Your task to perform on an android device: turn notification dots on Image 0: 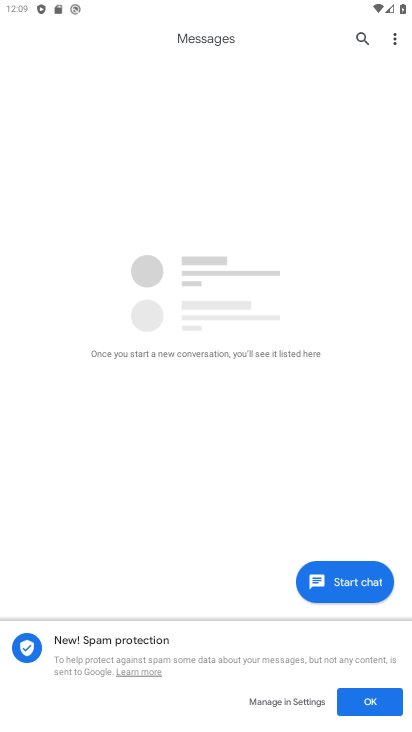
Step 0: drag from (204, 545) to (252, 367)
Your task to perform on an android device: turn notification dots on Image 1: 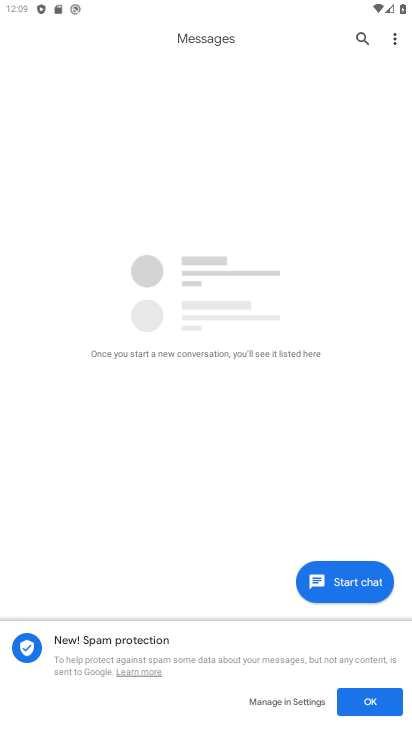
Step 1: press home button
Your task to perform on an android device: turn notification dots on Image 2: 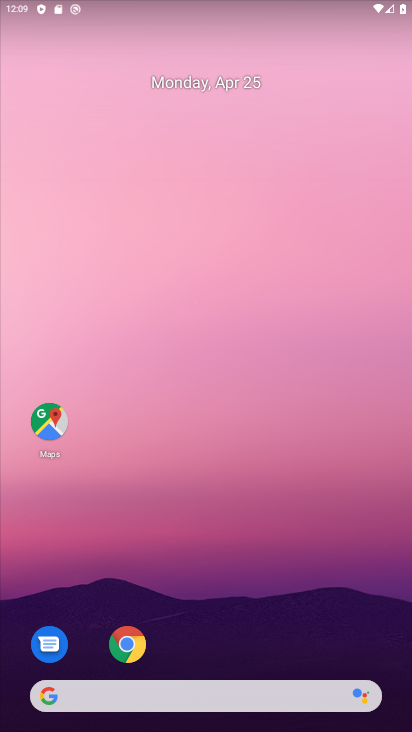
Step 2: drag from (214, 650) to (216, 119)
Your task to perform on an android device: turn notification dots on Image 3: 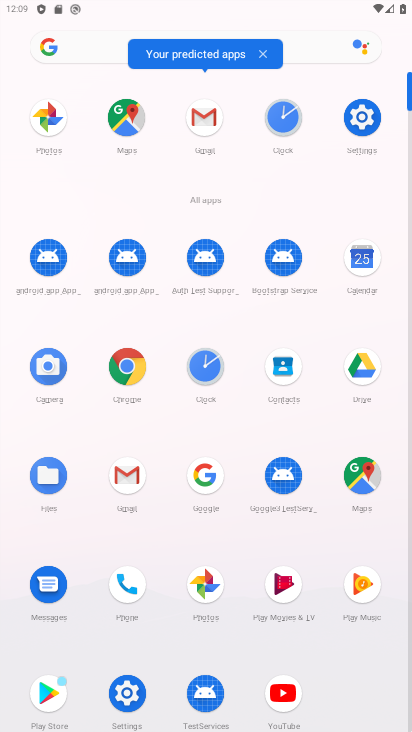
Step 3: click (352, 115)
Your task to perform on an android device: turn notification dots on Image 4: 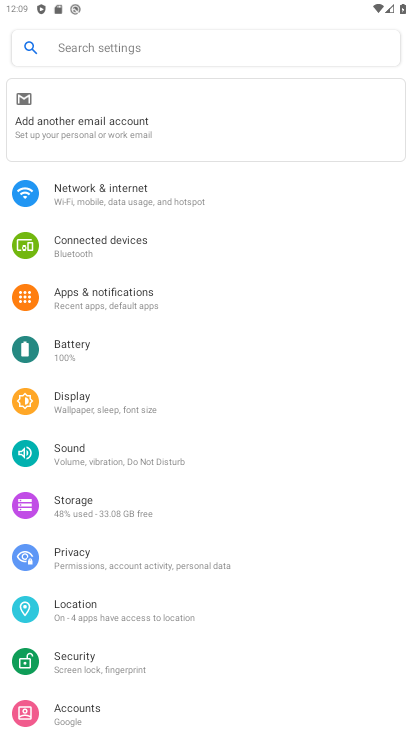
Step 4: click (264, 300)
Your task to perform on an android device: turn notification dots on Image 5: 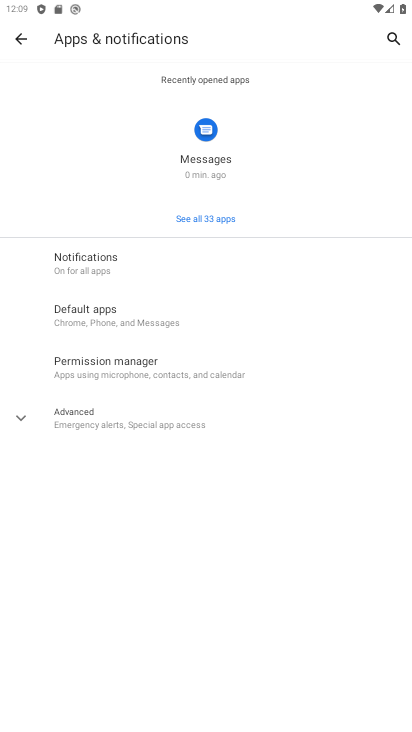
Step 5: click (213, 262)
Your task to perform on an android device: turn notification dots on Image 6: 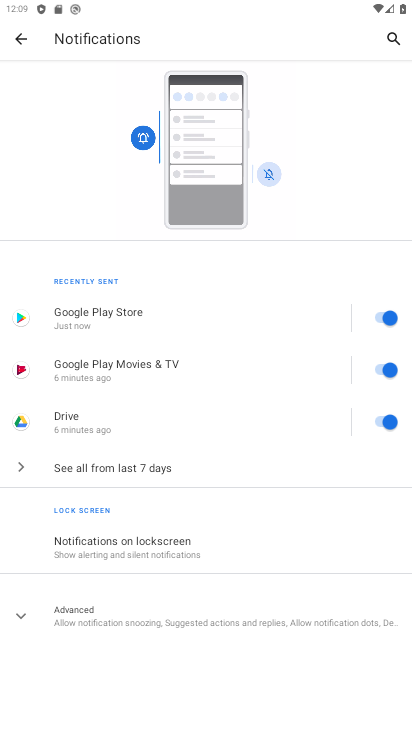
Step 6: click (142, 611)
Your task to perform on an android device: turn notification dots on Image 7: 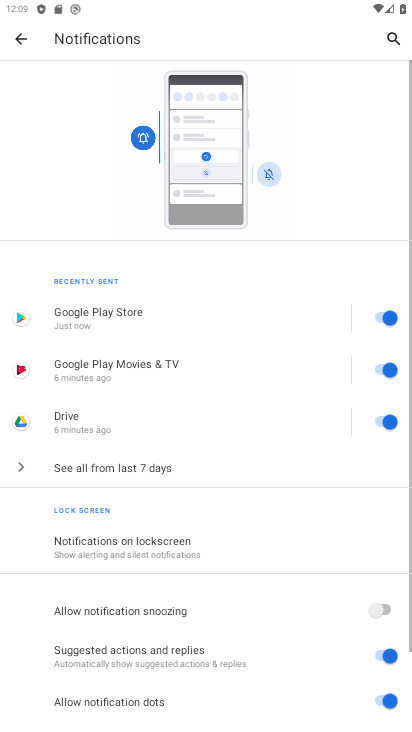
Step 7: drag from (142, 611) to (176, 341)
Your task to perform on an android device: turn notification dots on Image 8: 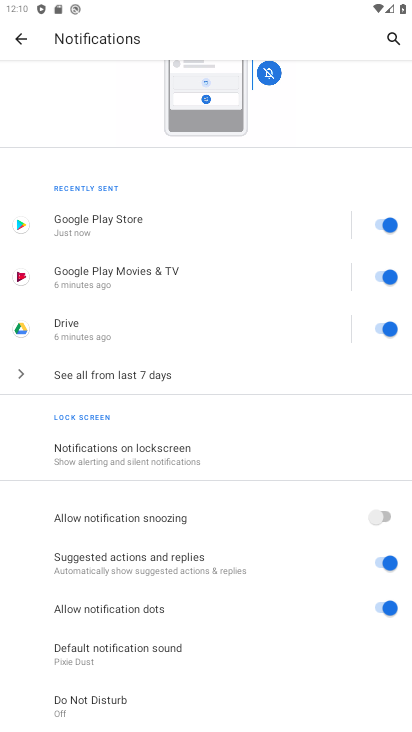
Step 8: click (368, 614)
Your task to perform on an android device: turn notification dots on Image 9: 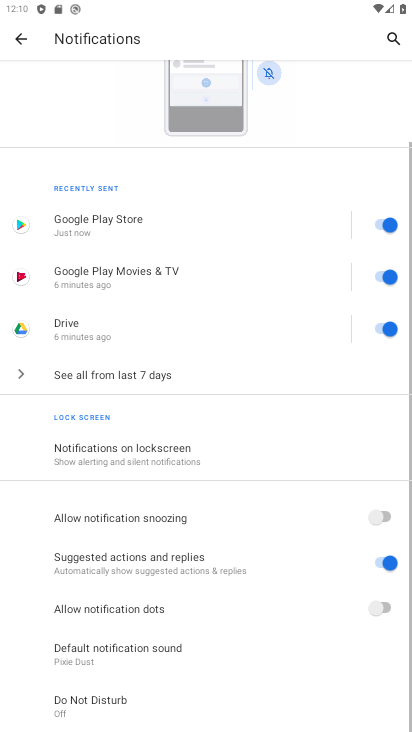
Step 9: click (368, 614)
Your task to perform on an android device: turn notification dots on Image 10: 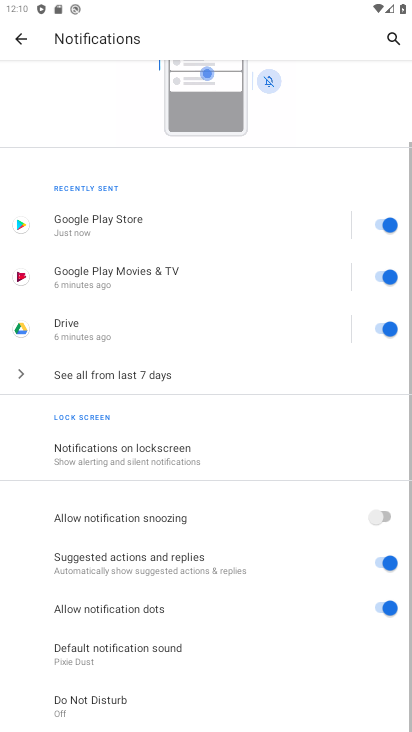
Step 10: task complete